Your task to perform on an android device: Open location settings Image 0: 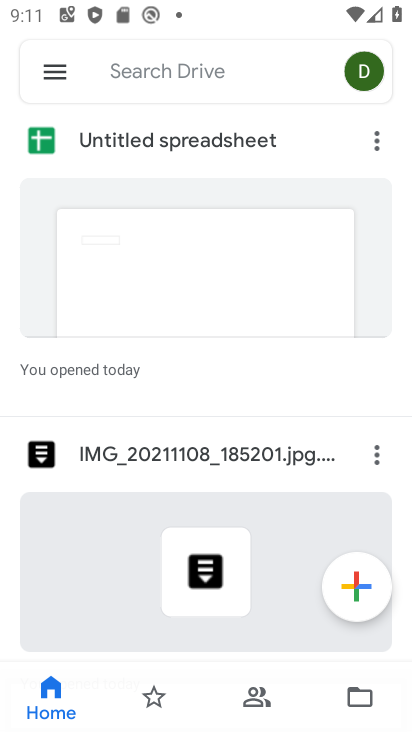
Step 0: press home button
Your task to perform on an android device: Open location settings Image 1: 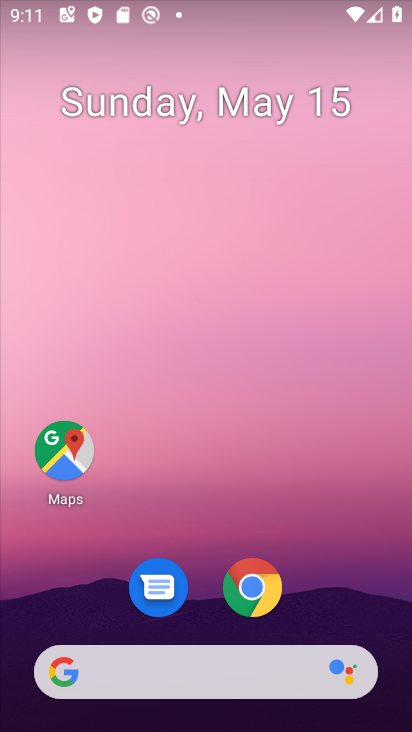
Step 1: drag from (389, 624) to (272, 40)
Your task to perform on an android device: Open location settings Image 2: 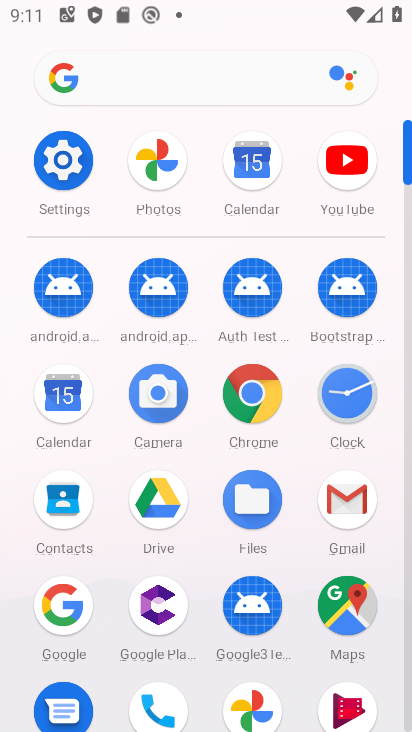
Step 2: click (43, 147)
Your task to perform on an android device: Open location settings Image 3: 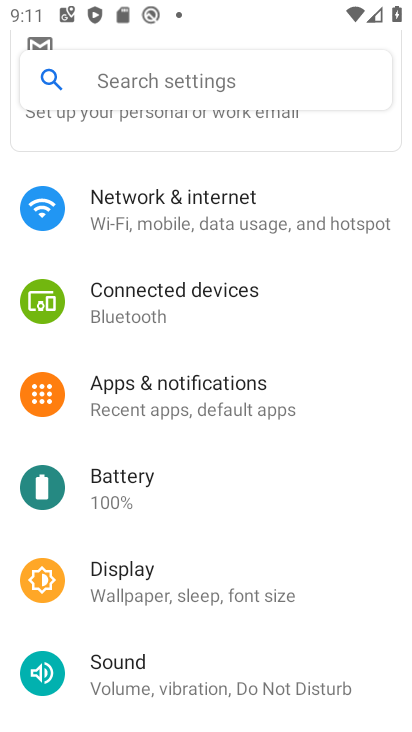
Step 3: drag from (176, 587) to (205, 239)
Your task to perform on an android device: Open location settings Image 4: 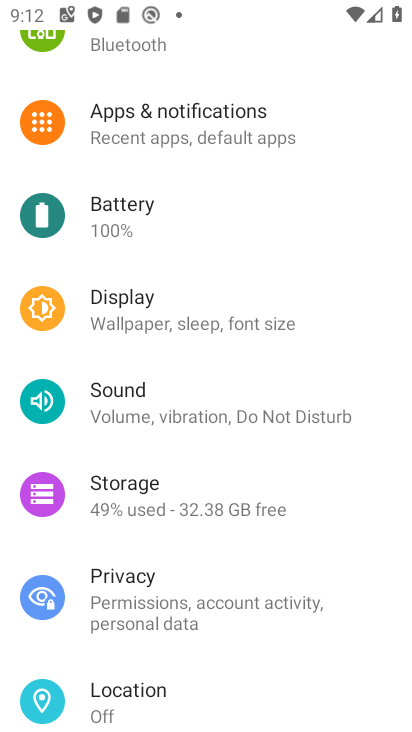
Step 4: click (135, 704)
Your task to perform on an android device: Open location settings Image 5: 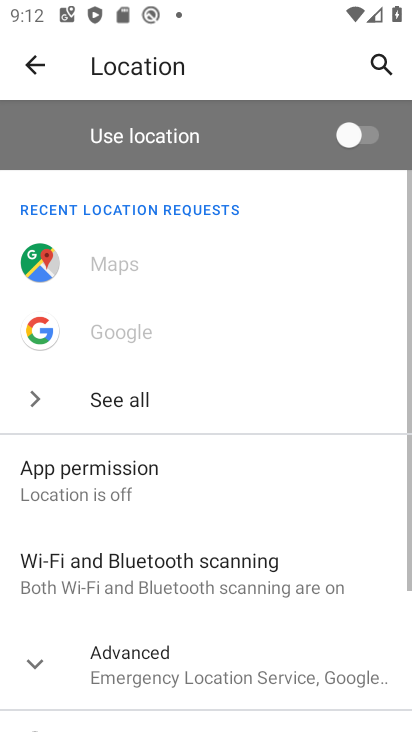
Step 5: task complete